Your task to perform on an android device: change the clock display to analog Image 0: 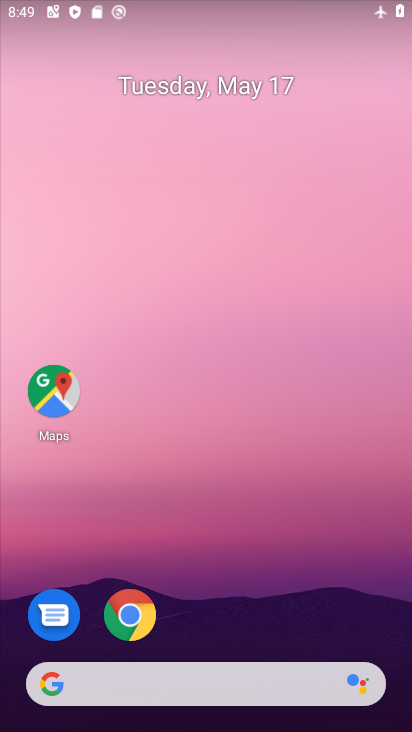
Step 0: drag from (285, 570) to (297, 187)
Your task to perform on an android device: change the clock display to analog Image 1: 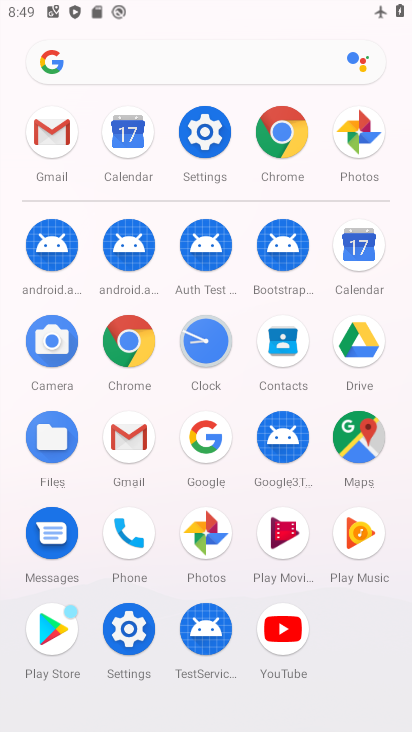
Step 1: click (194, 333)
Your task to perform on an android device: change the clock display to analog Image 2: 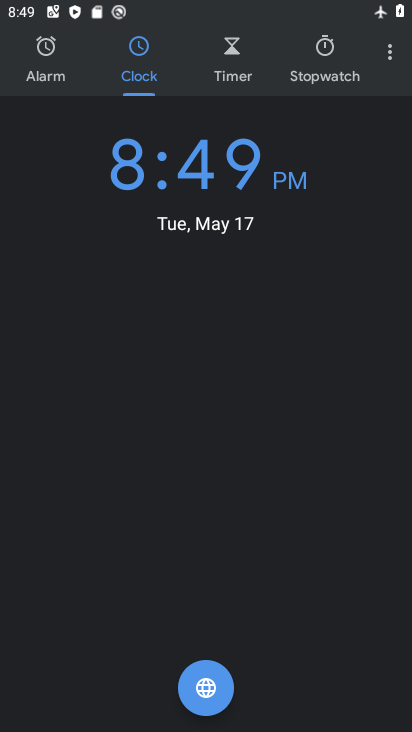
Step 2: click (381, 59)
Your task to perform on an android device: change the clock display to analog Image 3: 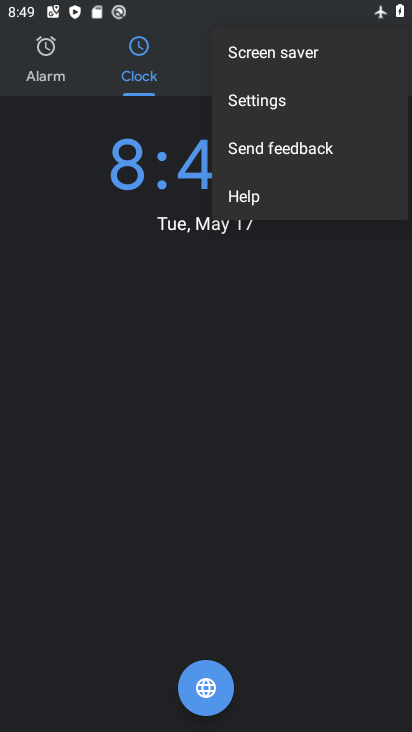
Step 3: click (261, 92)
Your task to perform on an android device: change the clock display to analog Image 4: 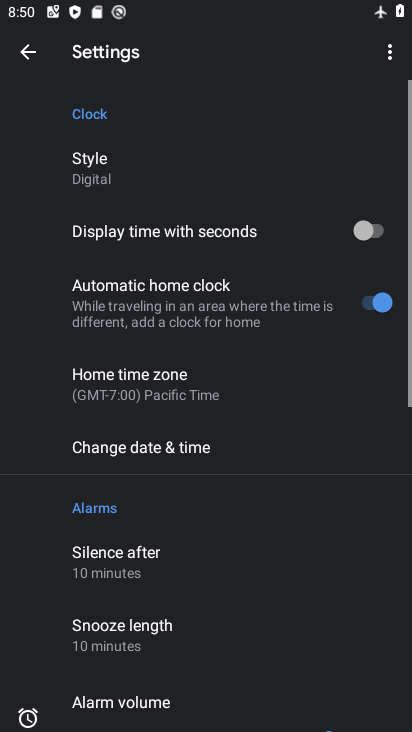
Step 4: click (173, 169)
Your task to perform on an android device: change the clock display to analog Image 5: 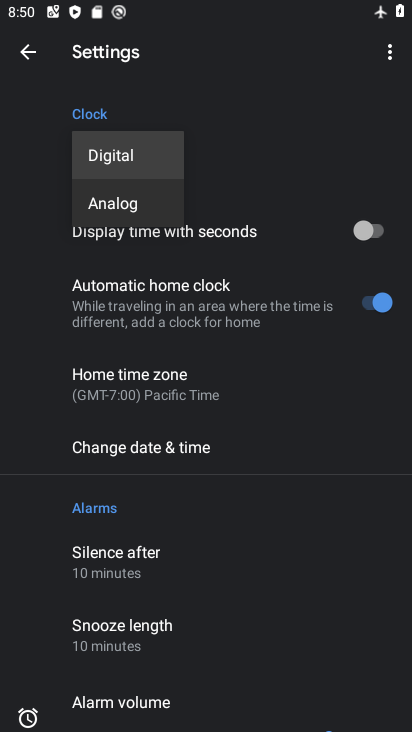
Step 5: click (135, 208)
Your task to perform on an android device: change the clock display to analog Image 6: 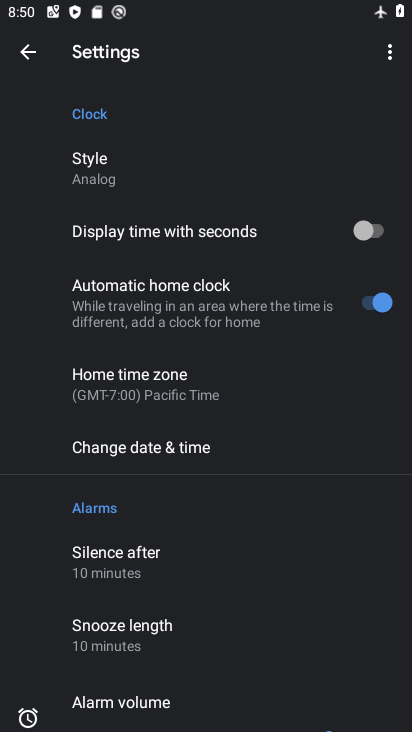
Step 6: task complete